Your task to perform on an android device: turn on sleep mode Image 0: 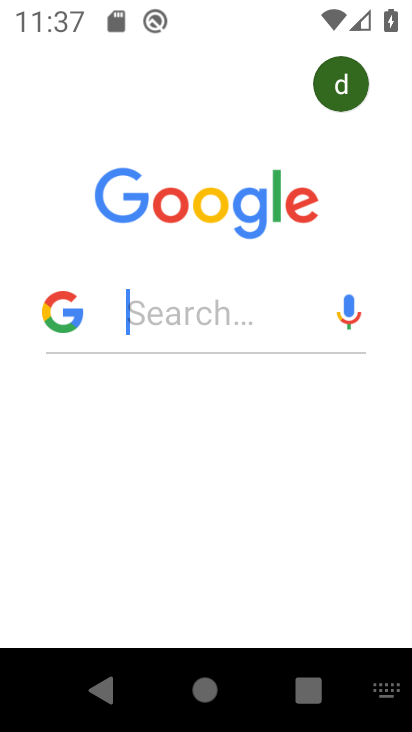
Step 0: press home button
Your task to perform on an android device: turn on sleep mode Image 1: 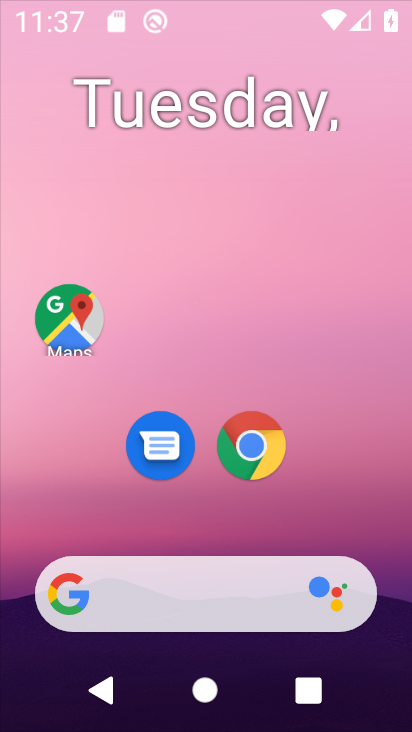
Step 1: drag from (379, 630) to (261, 28)
Your task to perform on an android device: turn on sleep mode Image 2: 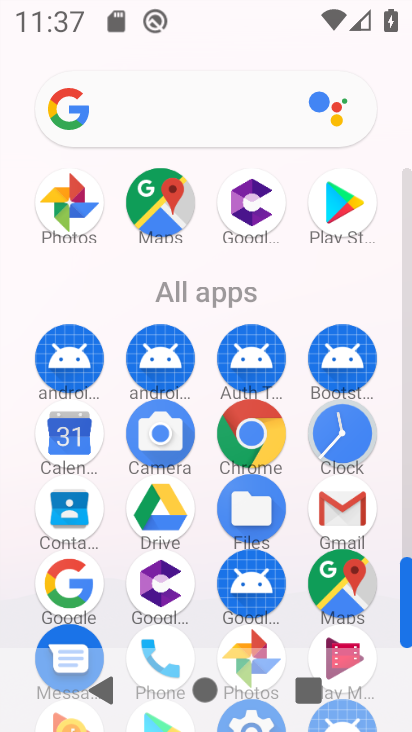
Step 2: drag from (223, 379) to (220, 127)
Your task to perform on an android device: turn on sleep mode Image 3: 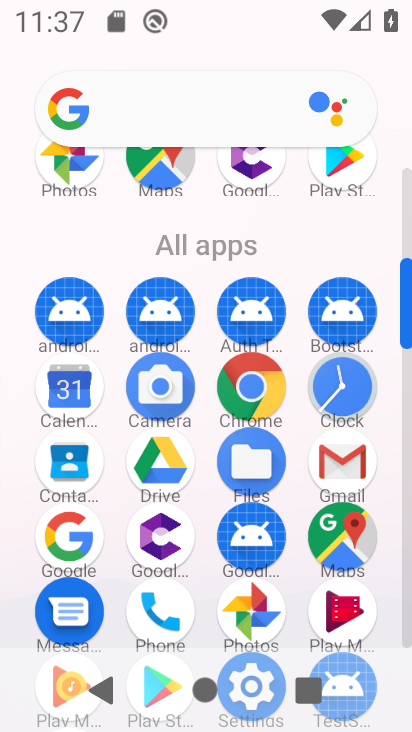
Step 3: drag from (221, 589) to (189, 121)
Your task to perform on an android device: turn on sleep mode Image 4: 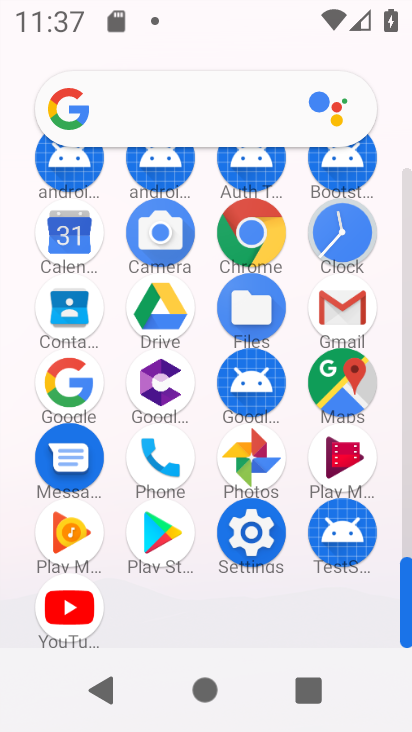
Step 4: click (251, 523)
Your task to perform on an android device: turn on sleep mode Image 5: 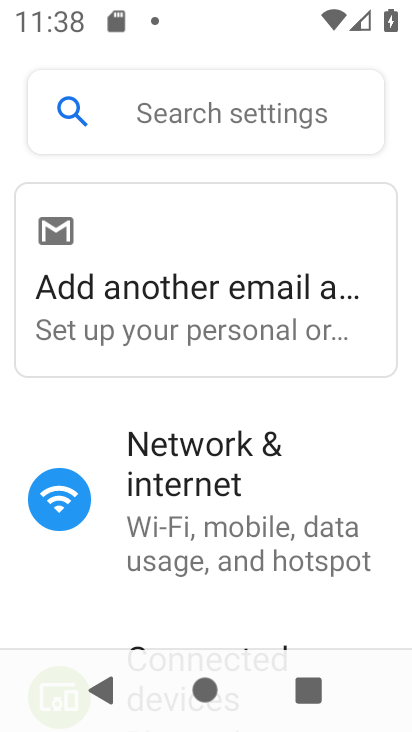
Step 5: task complete